Your task to perform on an android device: choose inbox layout in the gmail app Image 0: 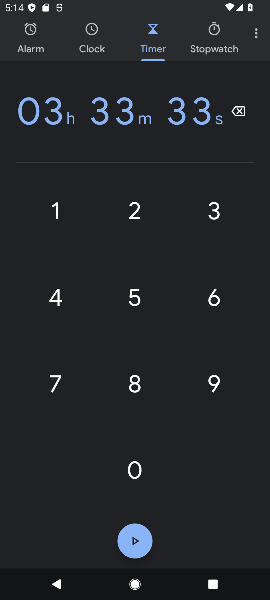
Step 0: press home button
Your task to perform on an android device: choose inbox layout in the gmail app Image 1: 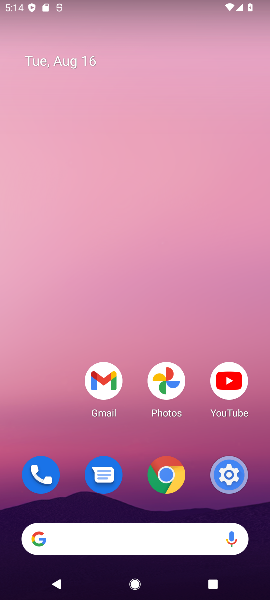
Step 1: drag from (255, 447) to (0, 54)
Your task to perform on an android device: choose inbox layout in the gmail app Image 2: 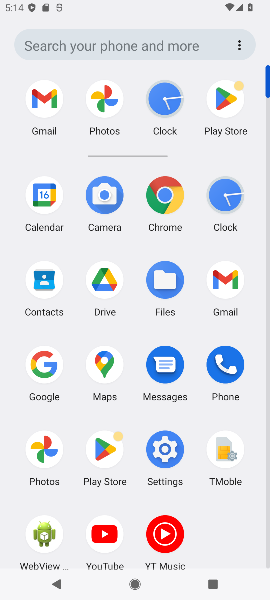
Step 2: click (237, 287)
Your task to perform on an android device: choose inbox layout in the gmail app Image 3: 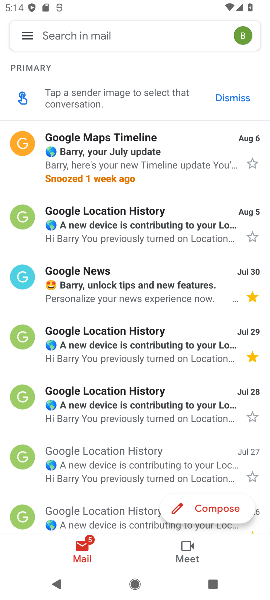
Step 3: task complete